Your task to perform on an android device: install app "Yahoo Mail" Image 0: 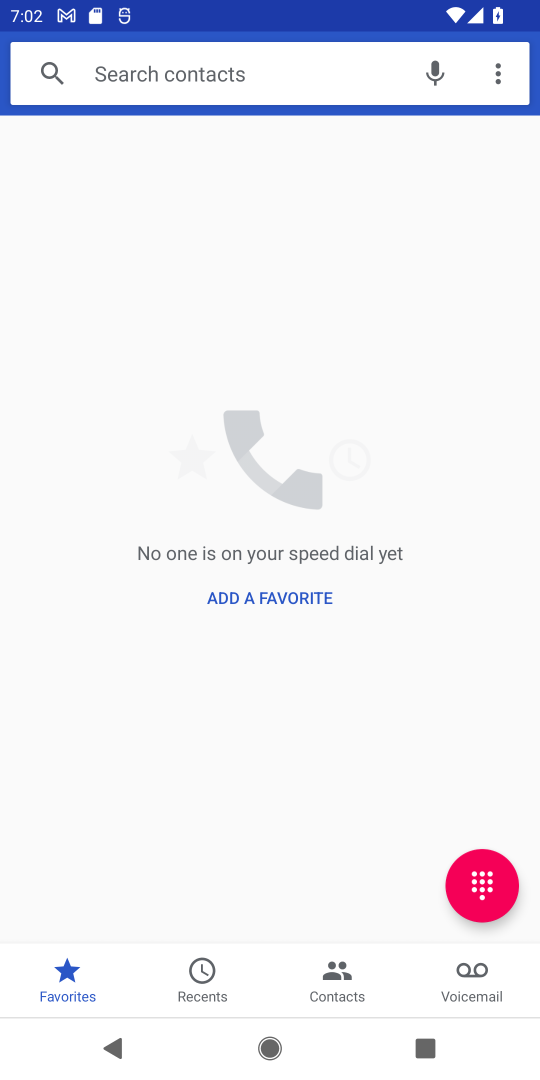
Step 0: press home button
Your task to perform on an android device: install app "Yahoo Mail" Image 1: 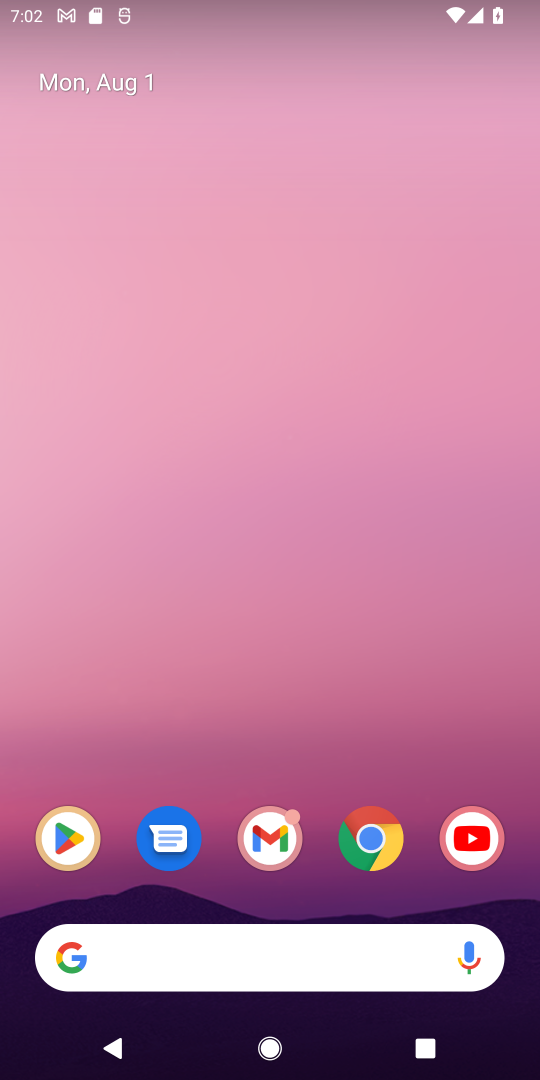
Step 1: click (34, 825)
Your task to perform on an android device: install app "Yahoo Mail" Image 2: 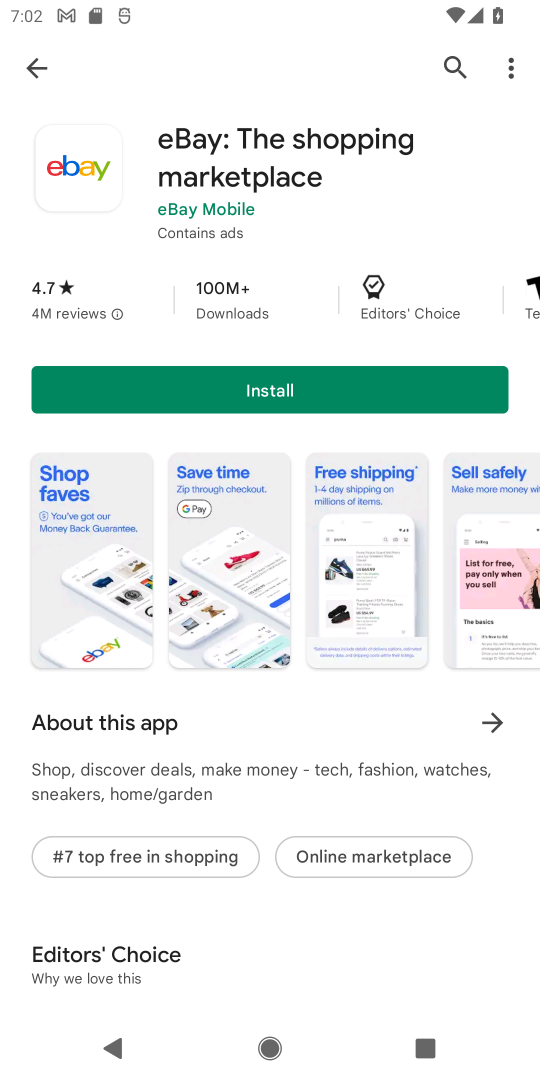
Step 2: click (446, 71)
Your task to perform on an android device: install app "Yahoo Mail" Image 3: 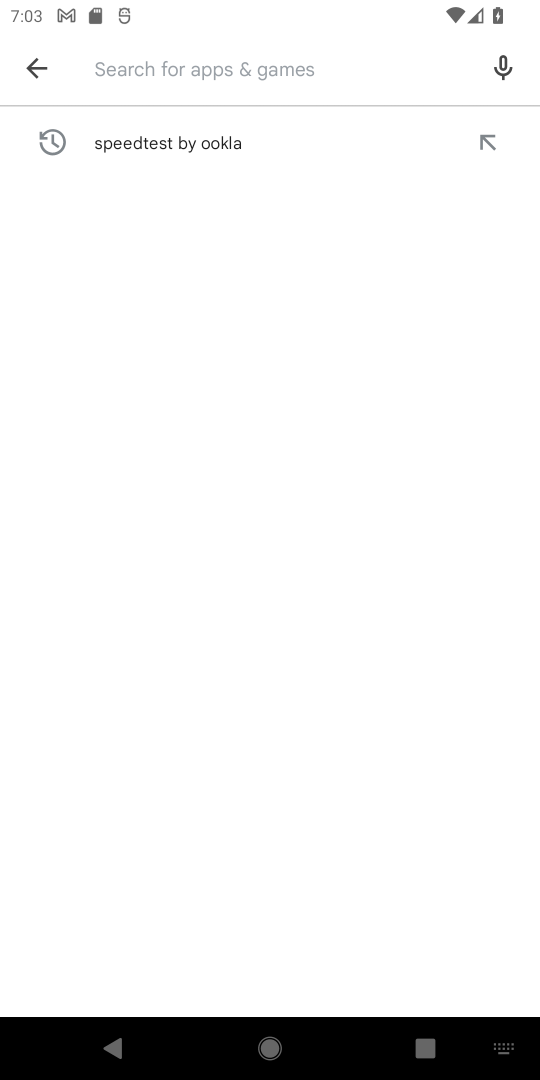
Step 3: click (352, 76)
Your task to perform on an android device: install app "Yahoo Mail" Image 4: 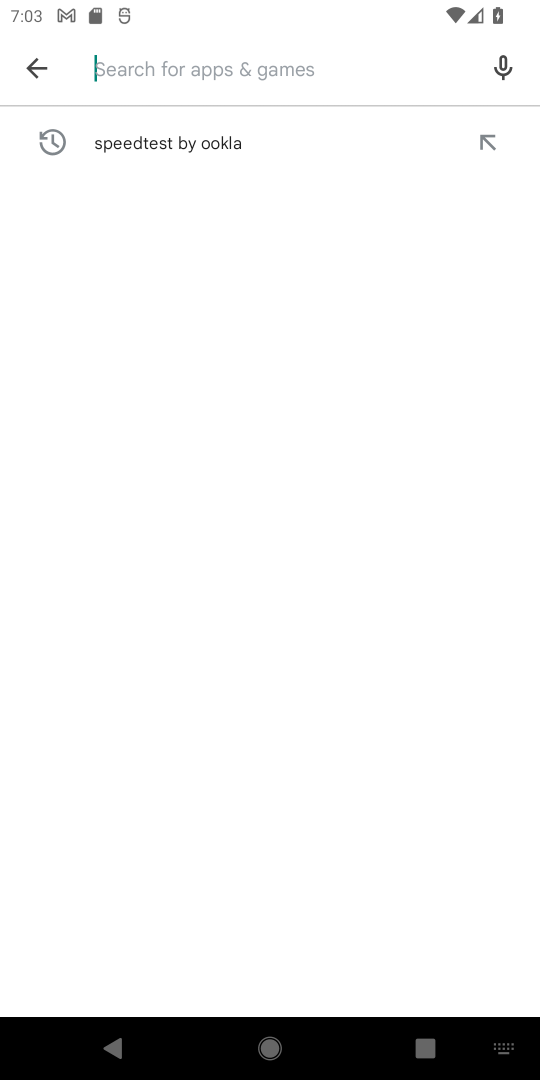
Step 4: type "yahoo mail"
Your task to perform on an android device: install app "Yahoo Mail" Image 5: 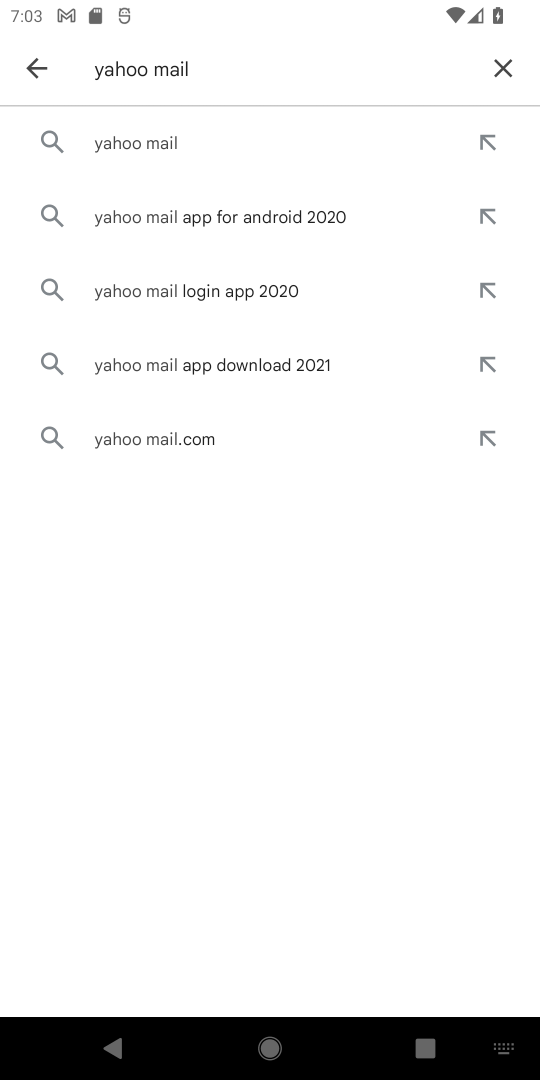
Step 5: click (88, 127)
Your task to perform on an android device: install app "Yahoo Mail" Image 6: 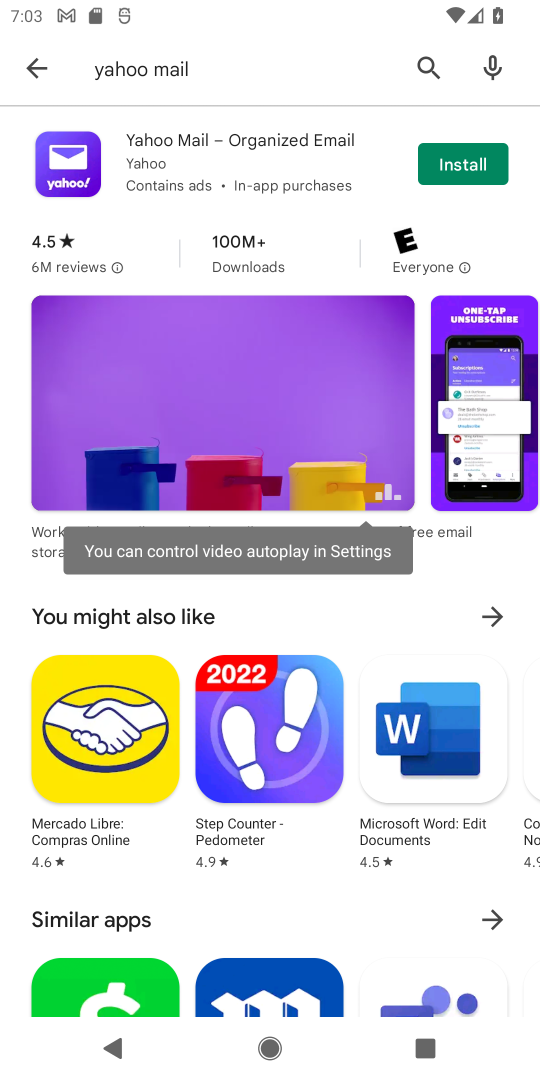
Step 6: click (214, 136)
Your task to perform on an android device: install app "Yahoo Mail" Image 7: 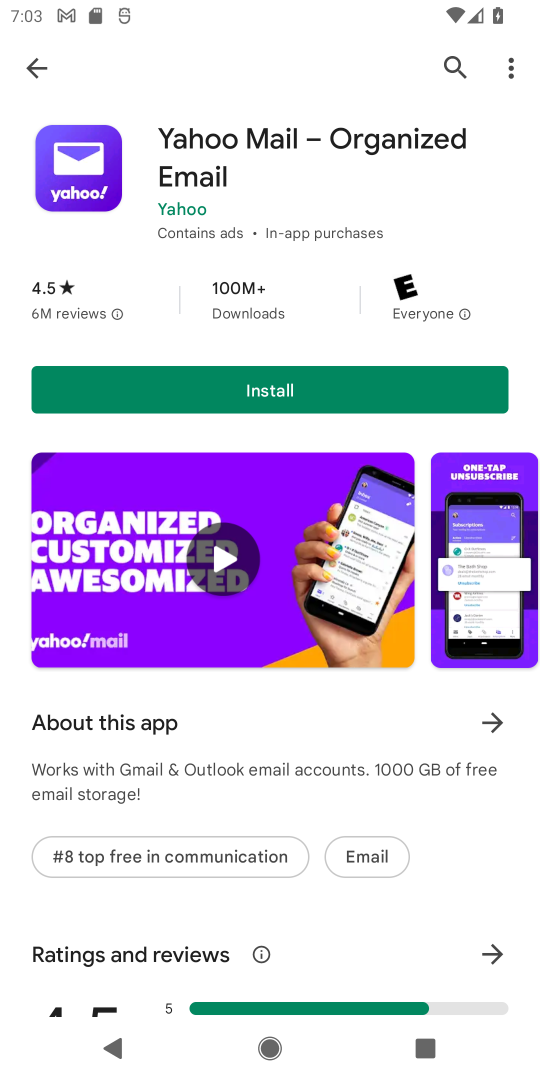
Step 7: click (452, 407)
Your task to perform on an android device: install app "Yahoo Mail" Image 8: 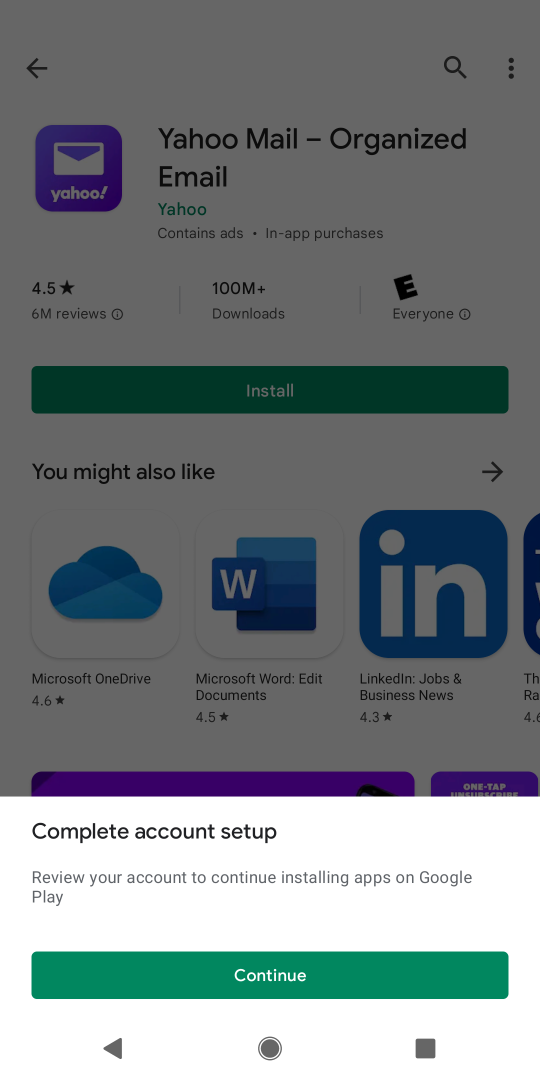
Step 8: click (117, 971)
Your task to perform on an android device: install app "Yahoo Mail" Image 9: 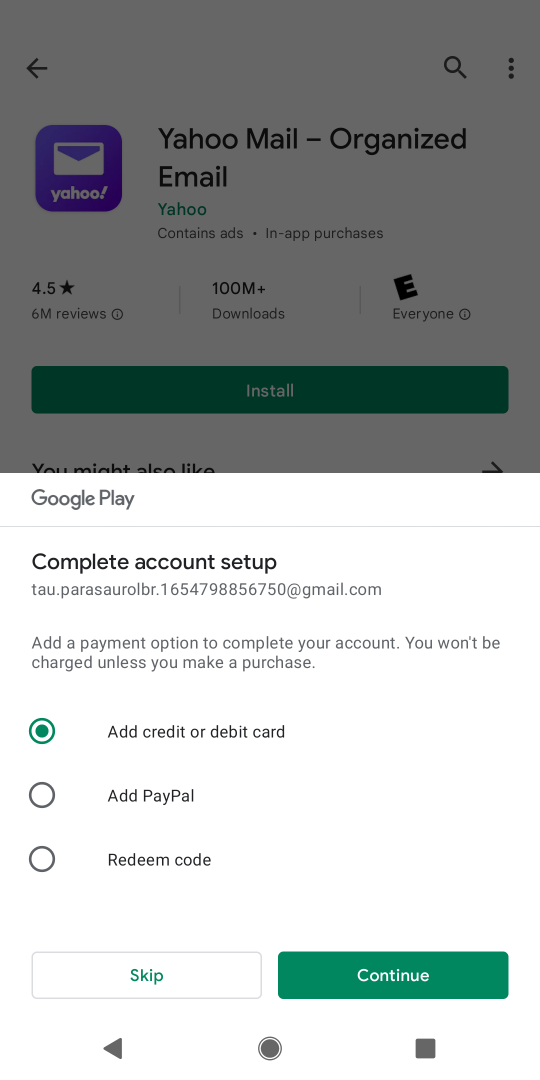
Step 9: click (117, 971)
Your task to perform on an android device: install app "Yahoo Mail" Image 10: 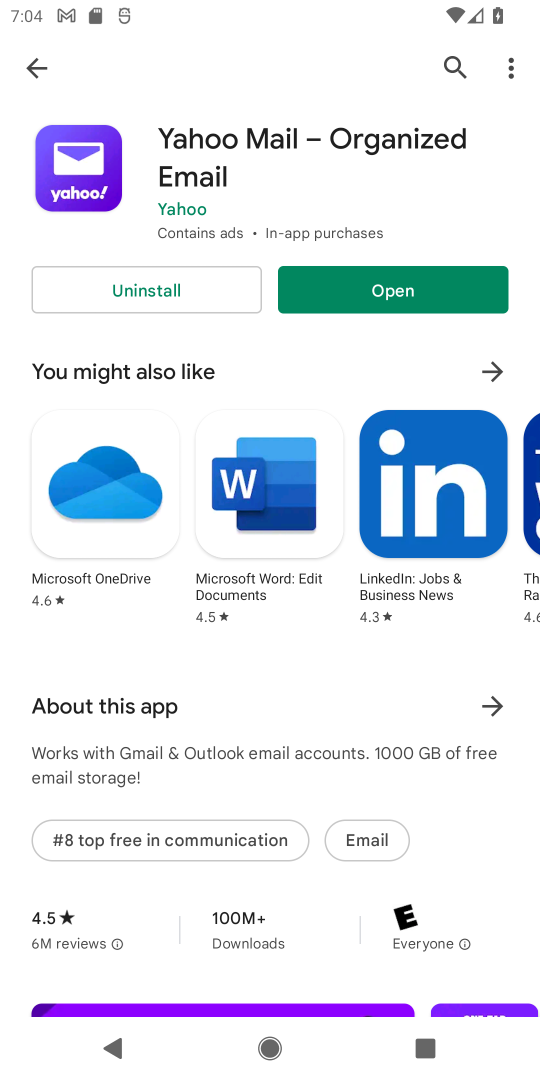
Step 10: task complete